Your task to perform on an android device: Go to privacy settings Image 0: 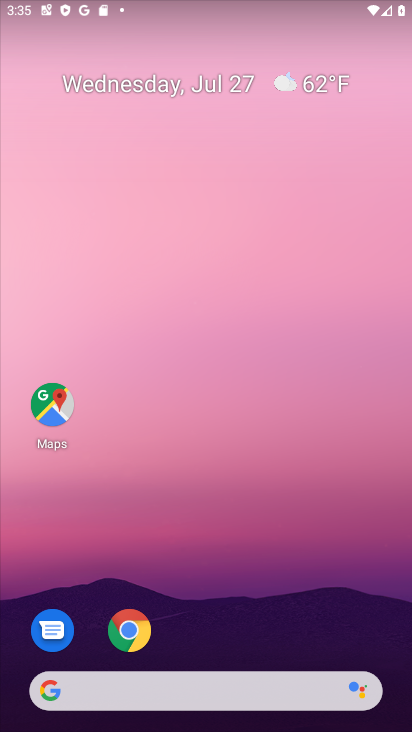
Step 0: drag from (164, 654) to (229, 11)
Your task to perform on an android device: Go to privacy settings Image 1: 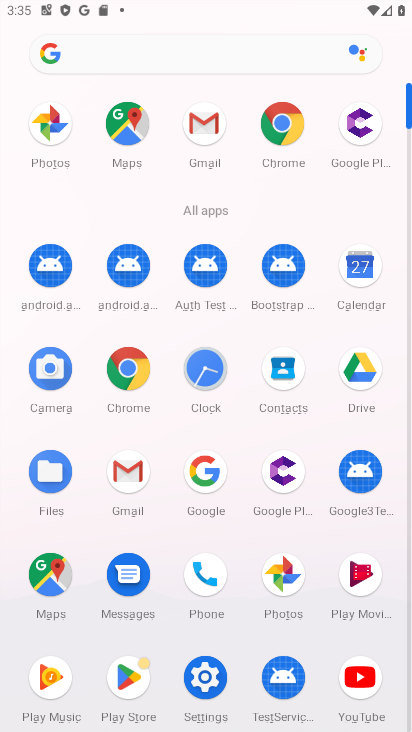
Step 1: click (212, 678)
Your task to perform on an android device: Go to privacy settings Image 2: 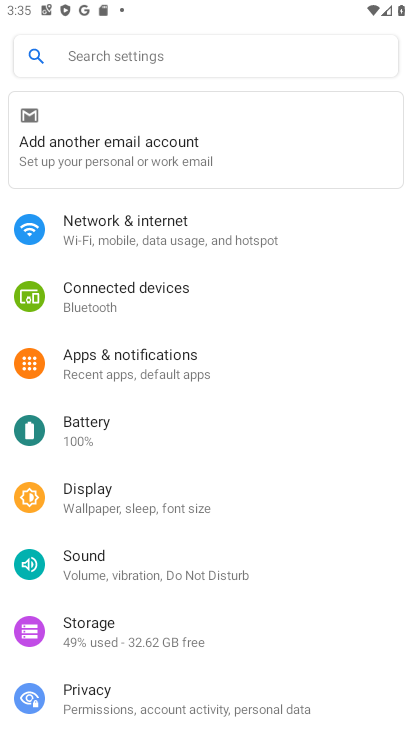
Step 2: click (93, 697)
Your task to perform on an android device: Go to privacy settings Image 3: 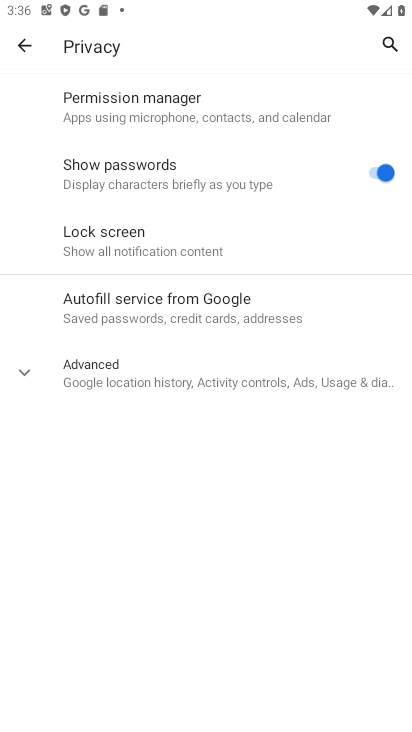
Step 3: task complete